Your task to perform on an android device: View the shopping cart on costco.com. Search for "acer predator" on costco.com, select the first entry, add it to the cart, then select checkout. Image 0: 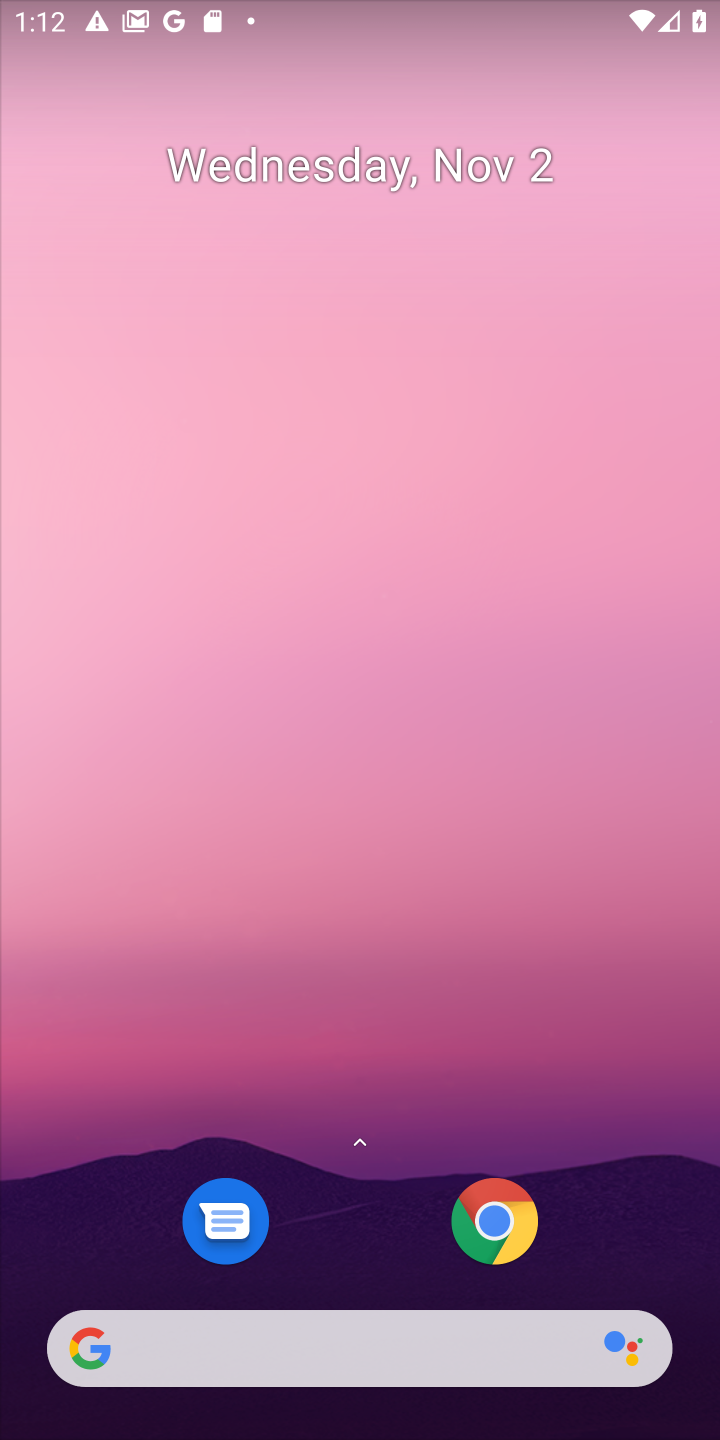
Step 0: click (473, 1325)
Your task to perform on an android device: View the shopping cart on costco.com. Search for "acer predator" on costco.com, select the first entry, add it to the cart, then select checkout. Image 1: 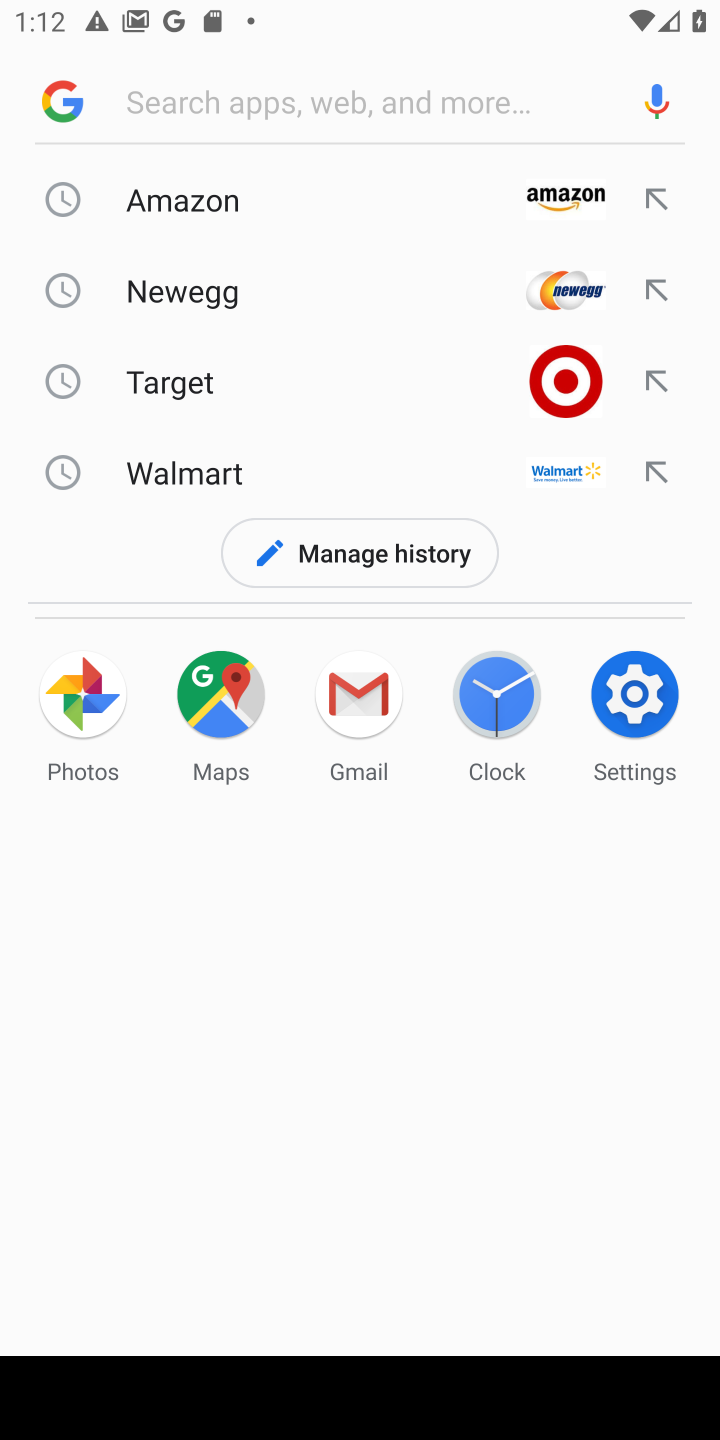
Step 1: type "costco.com"
Your task to perform on an android device: View the shopping cart on costco.com. Search for "acer predator" on costco.com, select the first entry, add it to the cart, then select checkout. Image 2: 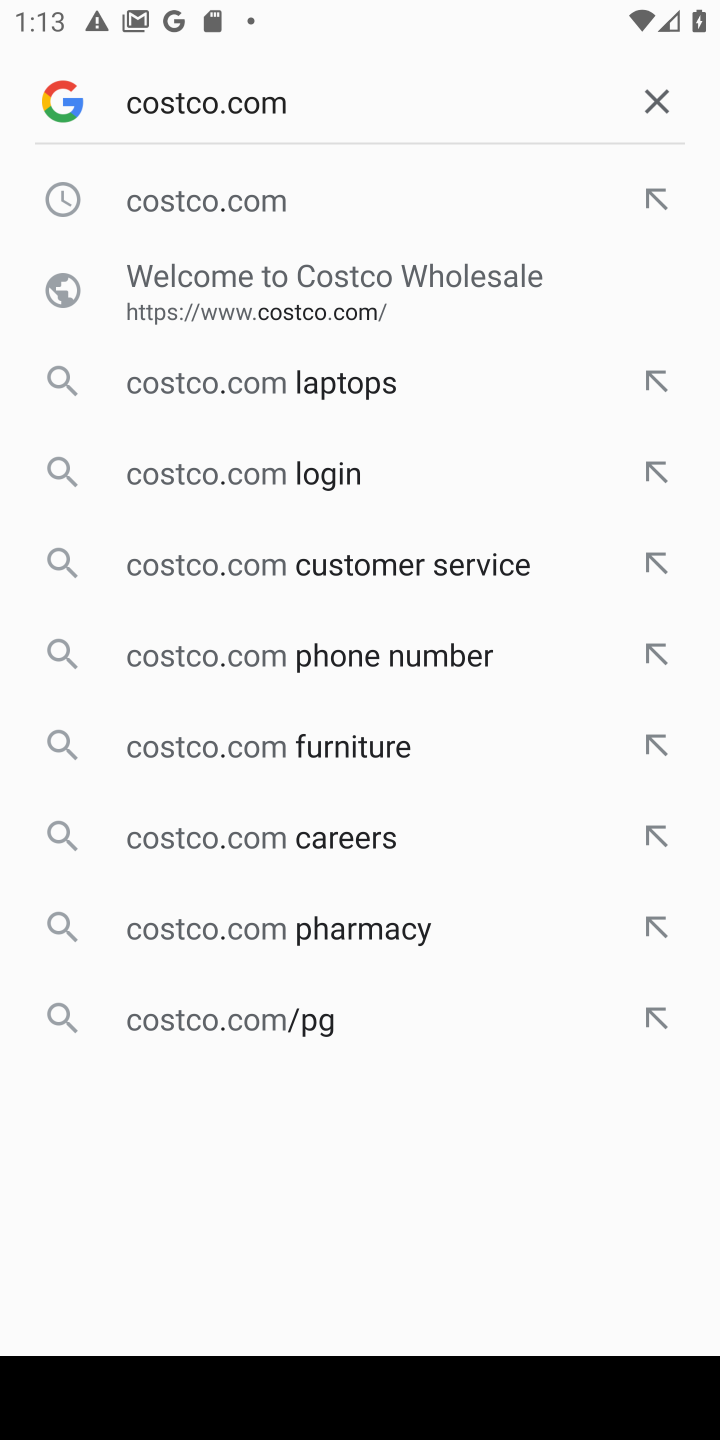
Step 2: click (245, 211)
Your task to perform on an android device: View the shopping cart on costco.com. Search for "acer predator" on costco.com, select the first entry, add it to the cart, then select checkout. Image 3: 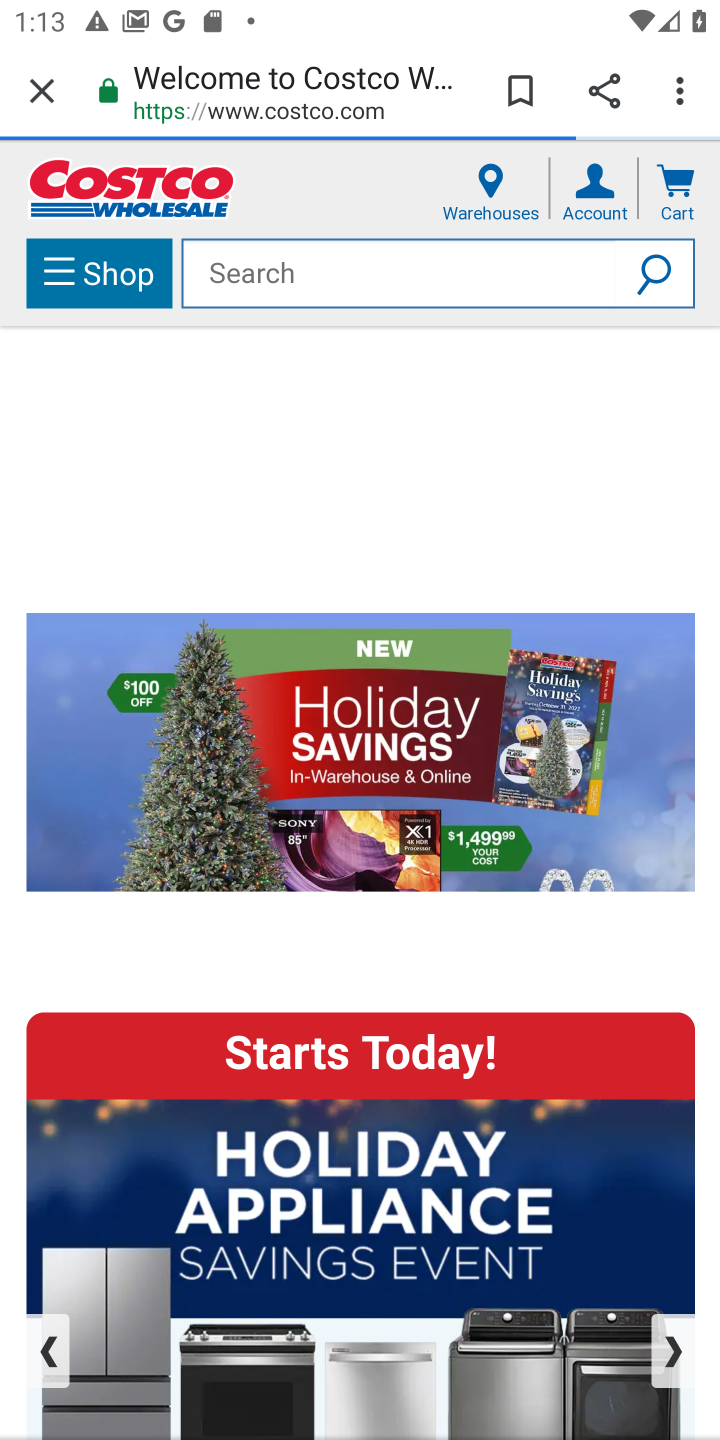
Step 3: click (279, 253)
Your task to perform on an android device: View the shopping cart on costco.com. Search for "acer predator" on costco.com, select the first entry, add it to the cart, then select checkout. Image 4: 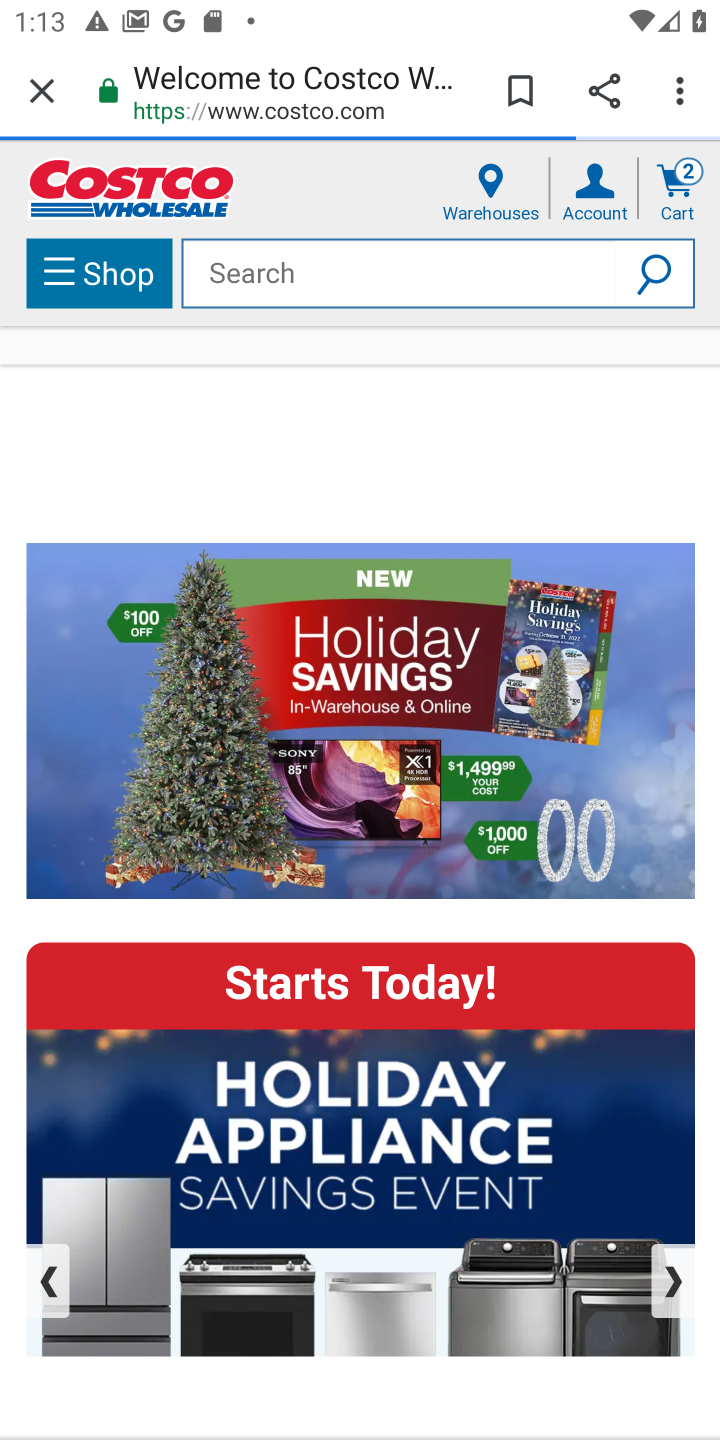
Step 4: type "acer pred"
Your task to perform on an android device: View the shopping cart on costco.com. Search for "acer predator" on costco.com, select the first entry, add it to the cart, then select checkout. Image 5: 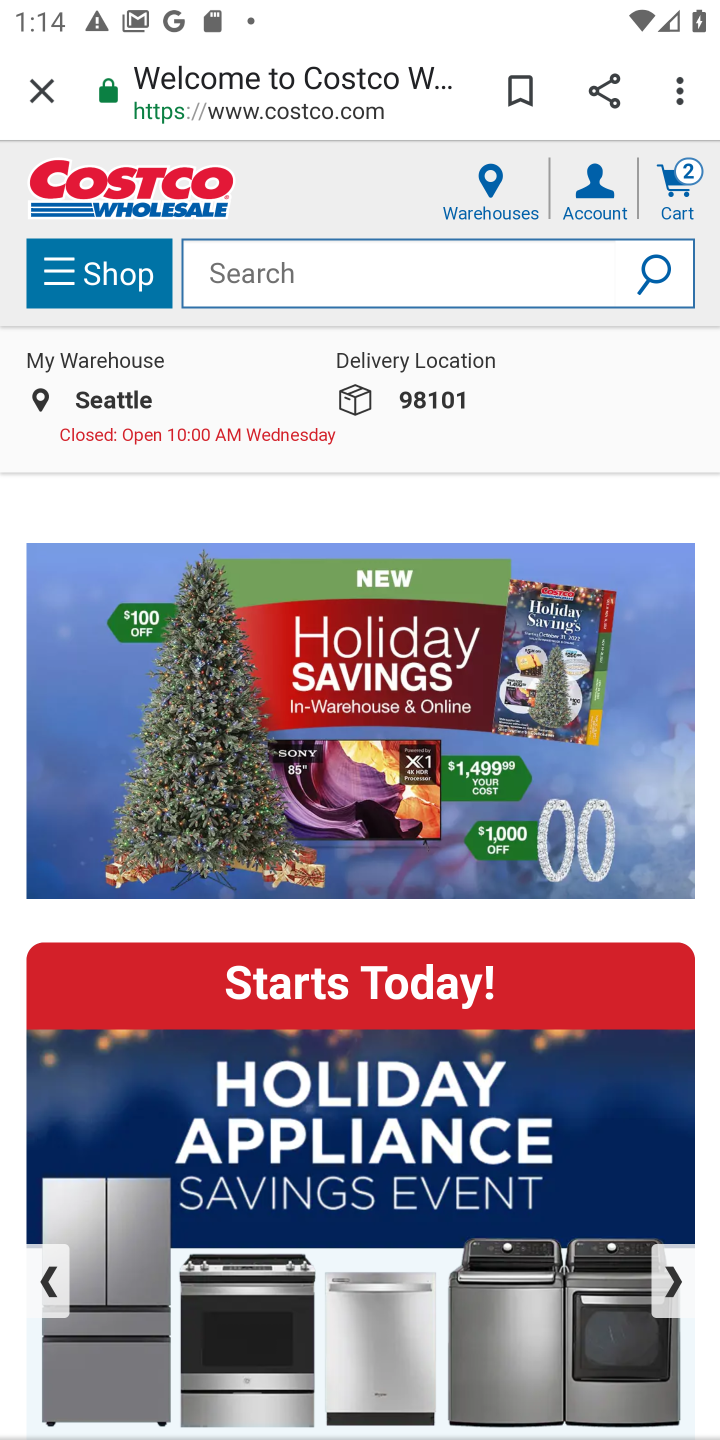
Step 5: task complete